Your task to perform on an android device: turn on wifi Image 0: 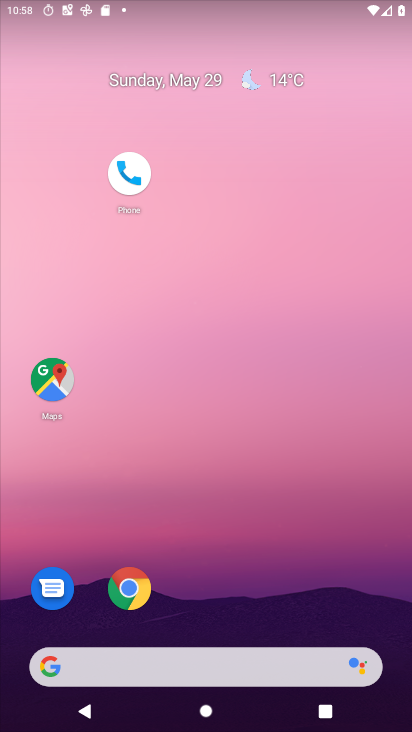
Step 0: drag from (272, 698) to (177, 153)
Your task to perform on an android device: turn on wifi Image 1: 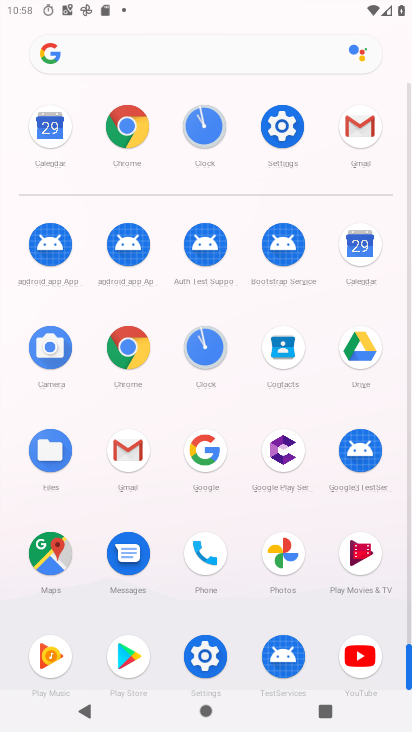
Step 1: click (294, 131)
Your task to perform on an android device: turn on wifi Image 2: 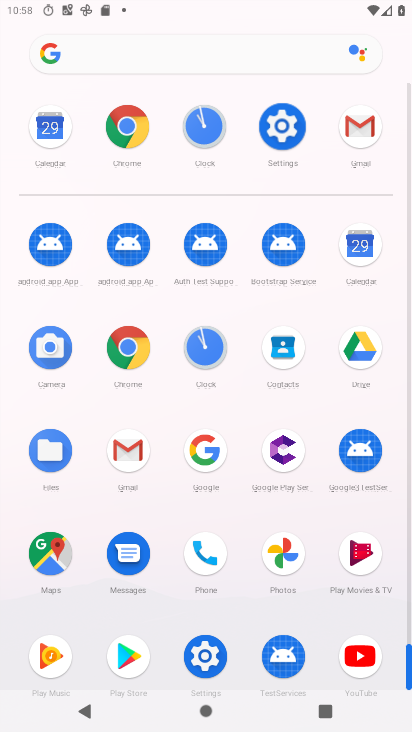
Step 2: drag from (285, 135) to (258, 164)
Your task to perform on an android device: turn on wifi Image 3: 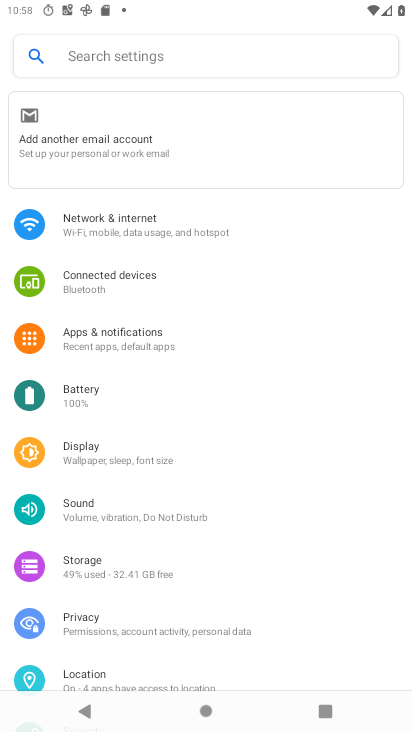
Step 3: click (131, 222)
Your task to perform on an android device: turn on wifi Image 4: 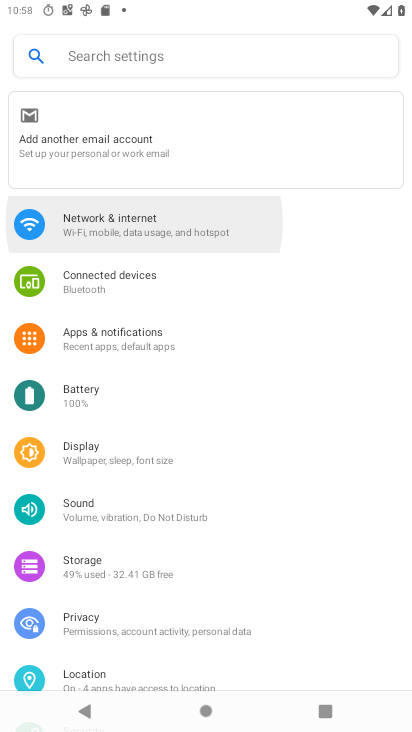
Step 4: click (131, 222)
Your task to perform on an android device: turn on wifi Image 5: 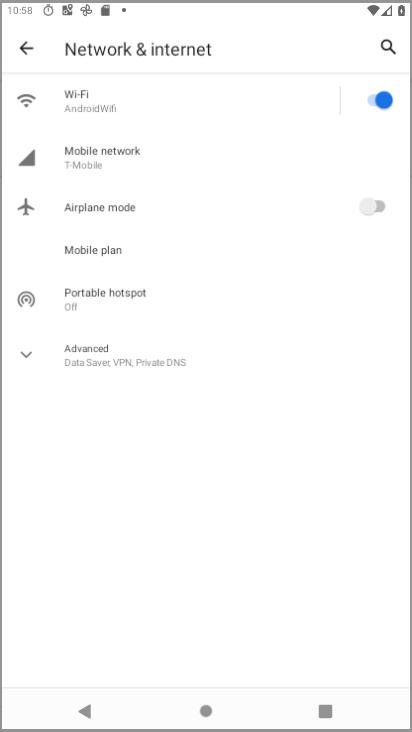
Step 5: click (128, 226)
Your task to perform on an android device: turn on wifi Image 6: 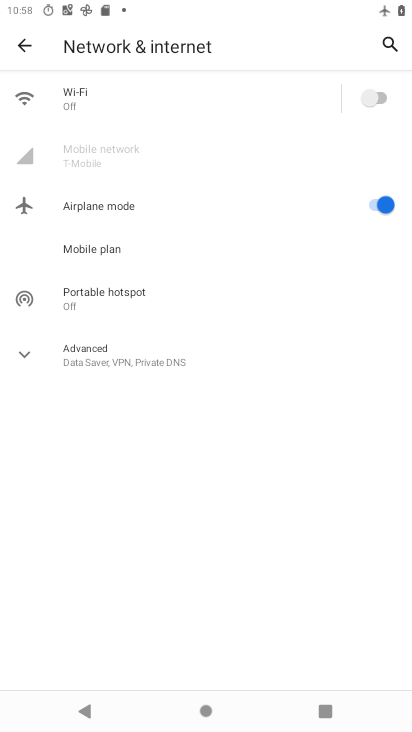
Step 6: task complete